Your task to perform on an android device: open chrome and create a bookmark for the current page Image 0: 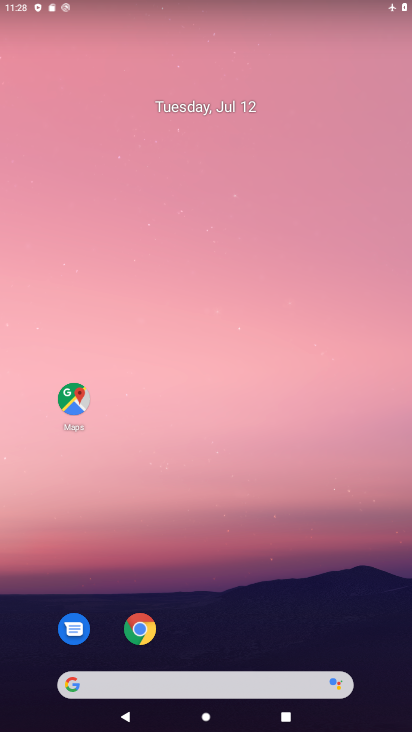
Step 0: drag from (214, 644) to (169, 155)
Your task to perform on an android device: open chrome and create a bookmark for the current page Image 1: 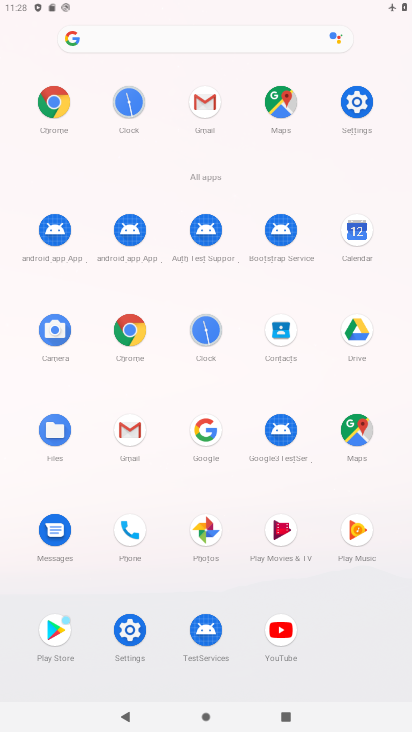
Step 1: click (128, 349)
Your task to perform on an android device: open chrome and create a bookmark for the current page Image 2: 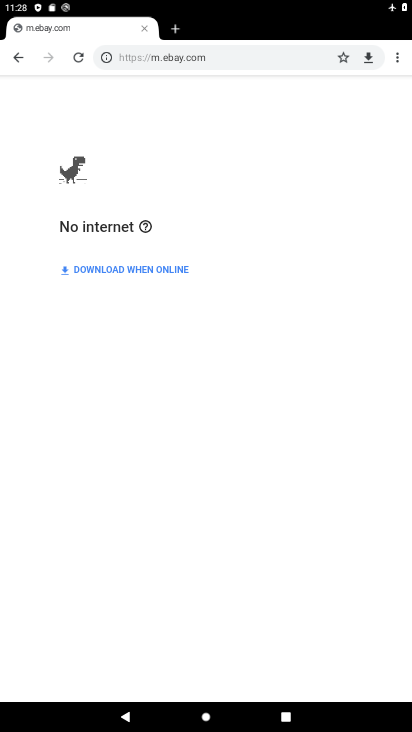
Step 2: click (398, 58)
Your task to perform on an android device: open chrome and create a bookmark for the current page Image 3: 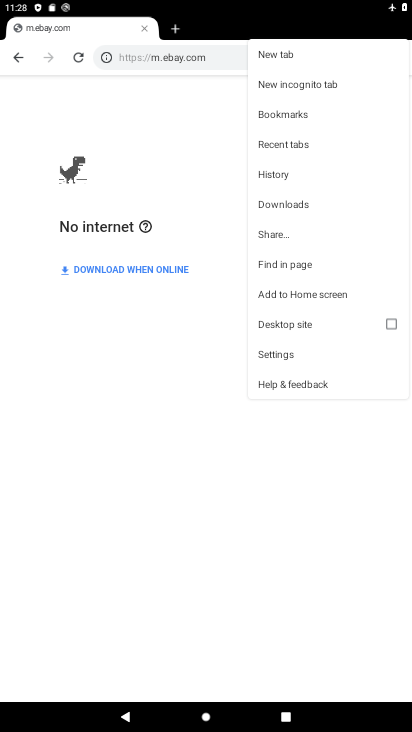
Step 3: click (134, 104)
Your task to perform on an android device: open chrome and create a bookmark for the current page Image 4: 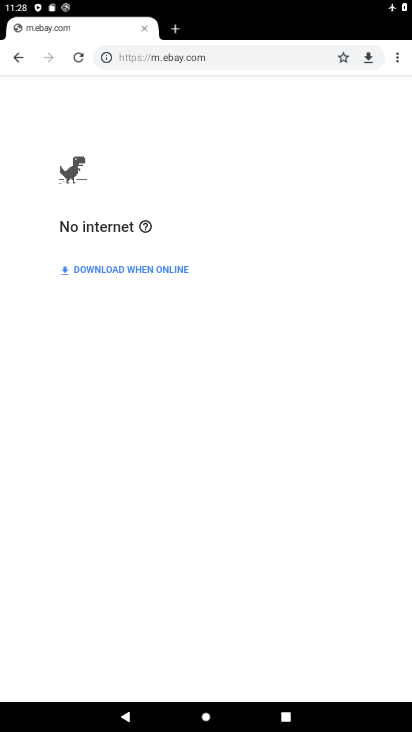
Step 4: click (344, 57)
Your task to perform on an android device: open chrome and create a bookmark for the current page Image 5: 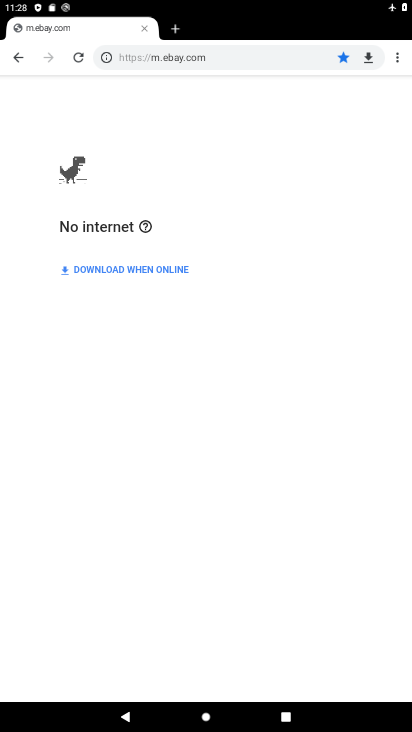
Step 5: click (344, 57)
Your task to perform on an android device: open chrome and create a bookmark for the current page Image 6: 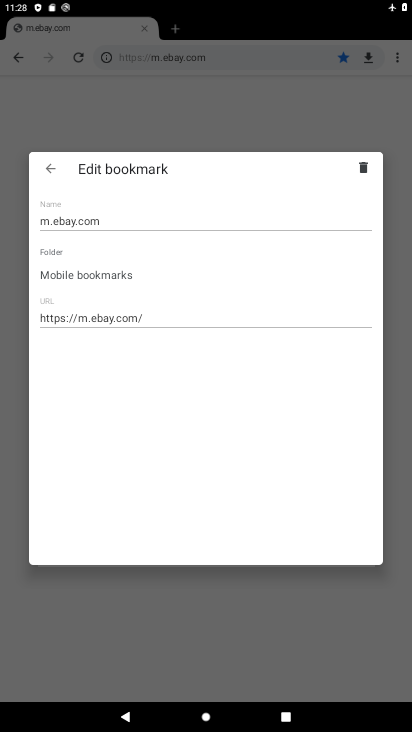
Step 6: click (360, 95)
Your task to perform on an android device: open chrome and create a bookmark for the current page Image 7: 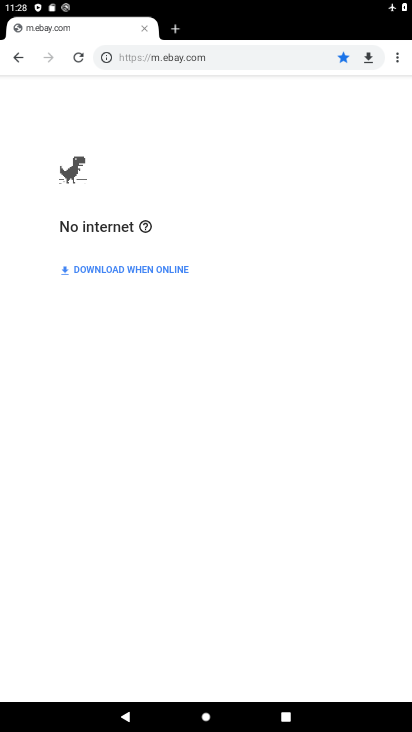
Step 7: task complete